Your task to perform on an android device: turn off airplane mode Image 0: 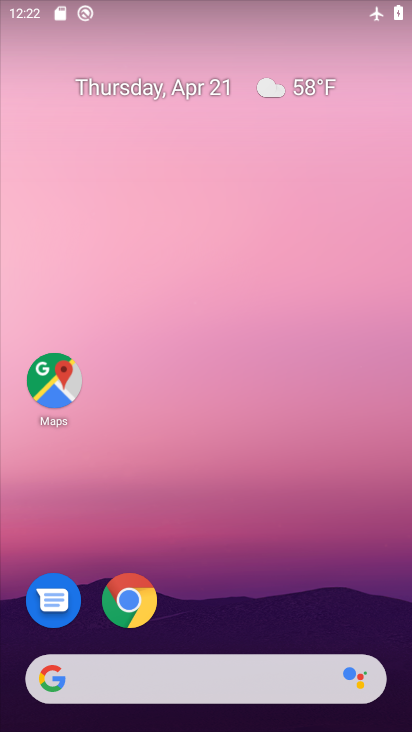
Step 0: drag from (316, 546) to (348, 20)
Your task to perform on an android device: turn off airplane mode Image 1: 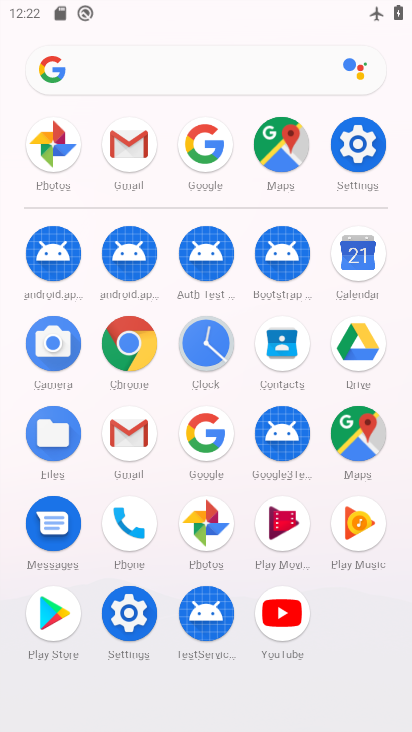
Step 1: click (353, 135)
Your task to perform on an android device: turn off airplane mode Image 2: 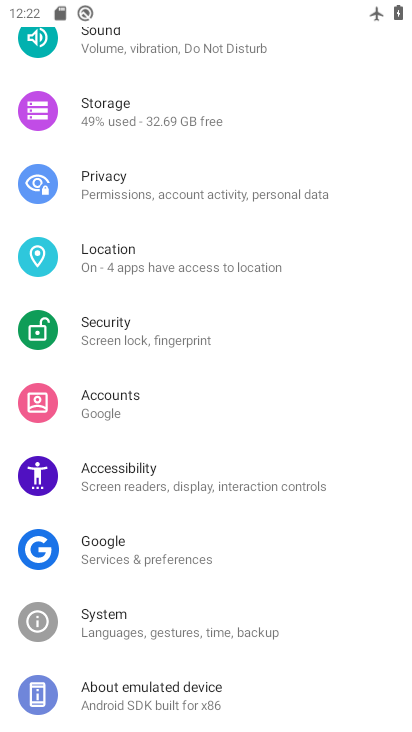
Step 2: drag from (233, 146) to (192, 615)
Your task to perform on an android device: turn off airplane mode Image 3: 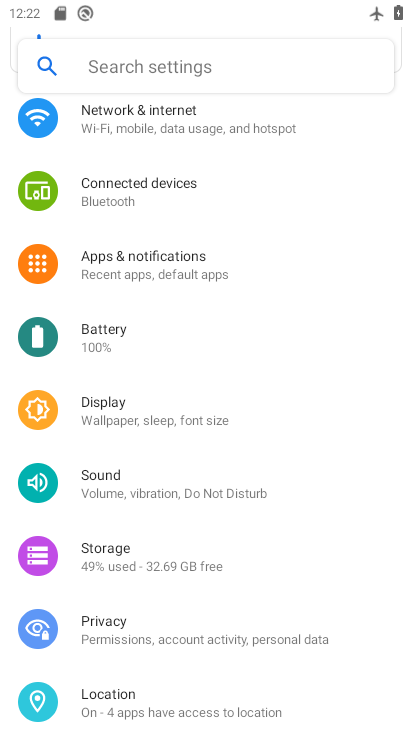
Step 3: click (230, 120)
Your task to perform on an android device: turn off airplane mode Image 4: 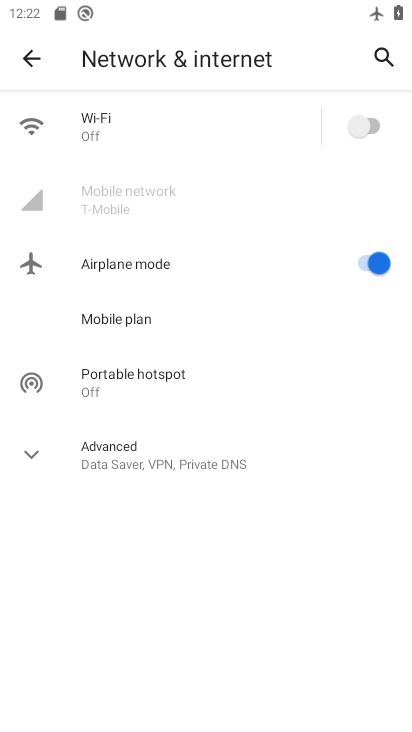
Step 4: click (361, 259)
Your task to perform on an android device: turn off airplane mode Image 5: 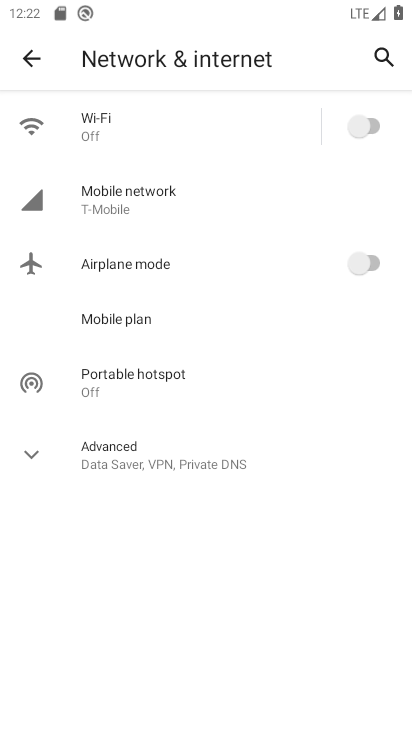
Step 5: task complete